Your task to perform on an android device: check out phone information Image 0: 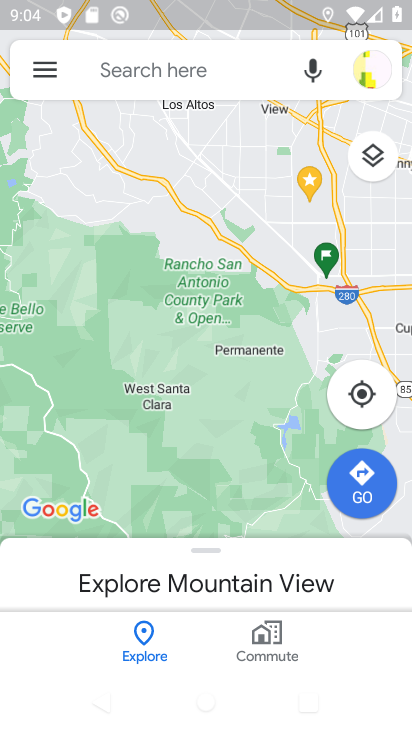
Step 0: press home button
Your task to perform on an android device: check out phone information Image 1: 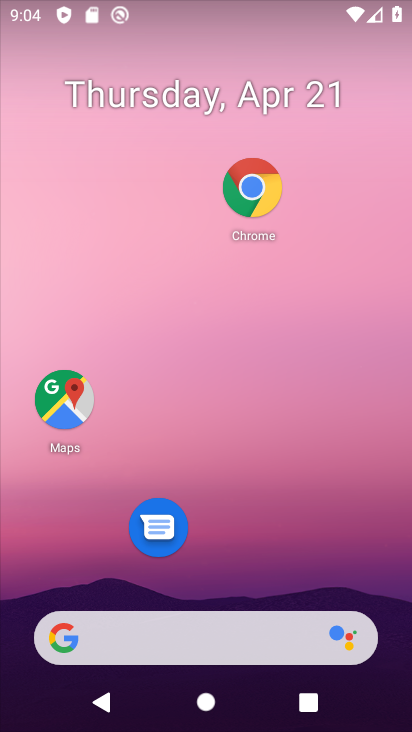
Step 1: drag from (287, 539) to (281, 12)
Your task to perform on an android device: check out phone information Image 2: 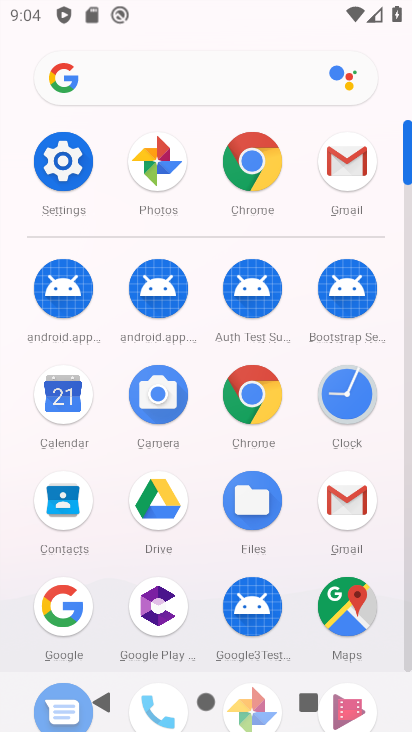
Step 2: click (76, 160)
Your task to perform on an android device: check out phone information Image 3: 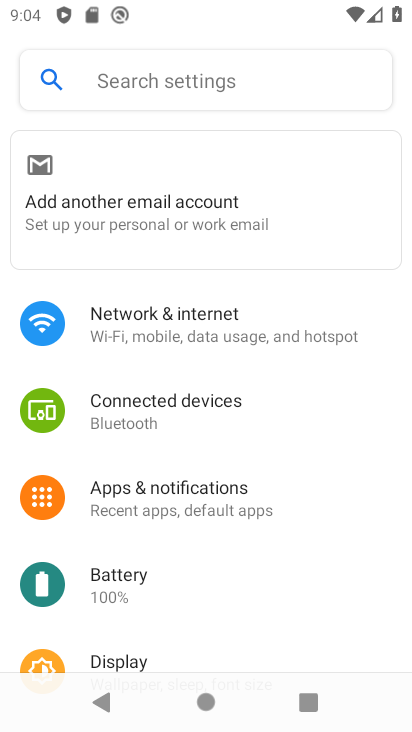
Step 3: drag from (279, 514) to (394, 485)
Your task to perform on an android device: check out phone information Image 4: 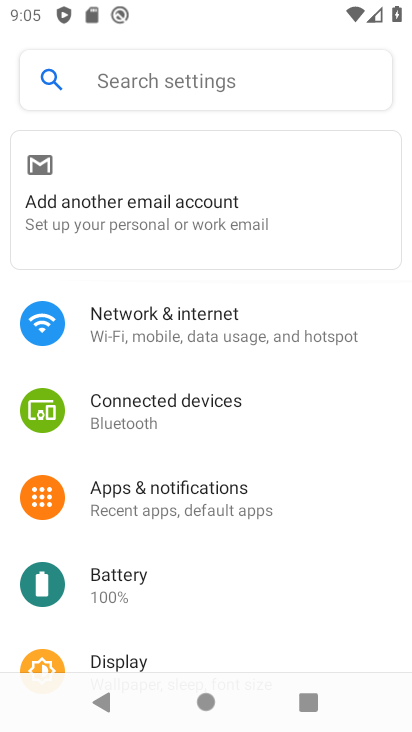
Step 4: drag from (148, 542) to (119, 0)
Your task to perform on an android device: check out phone information Image 5: 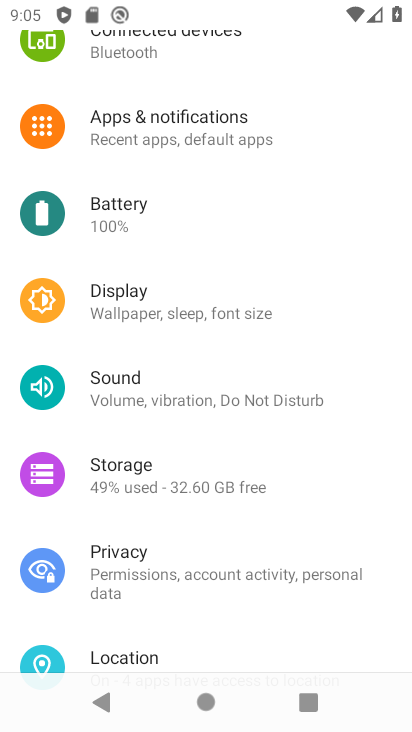
Step 5: drag from (249, 542) to (181, 125)
Your task to perform on an android device: check out phone information Image 6: 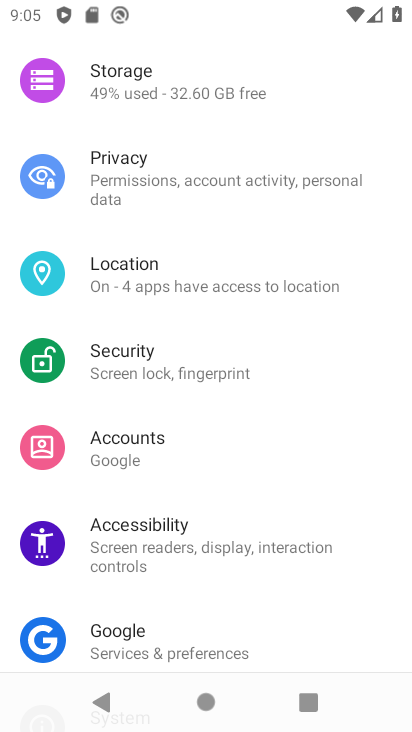
Step 6: drag from (166, 516) to (171, 125)
Your task to perform on an android device: check out phone information Image 7: 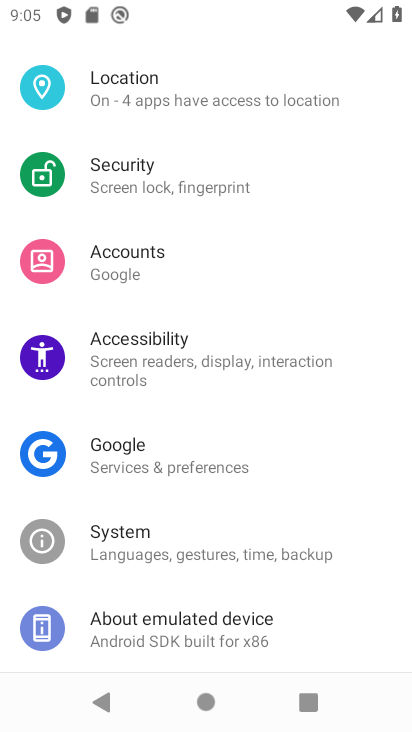
Step 7: click (193, 603)
Your task to perform on an android device: check out phone information Image 8: 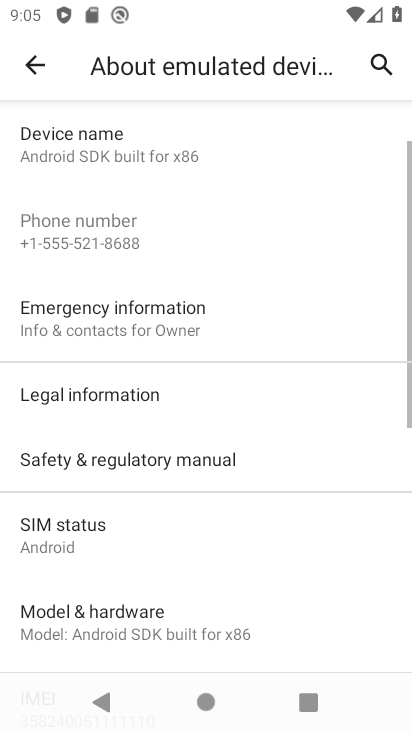
Step 8: task complete